Your task to perform on an android device: Search for seafood restaurants on Google Maps Image 0: 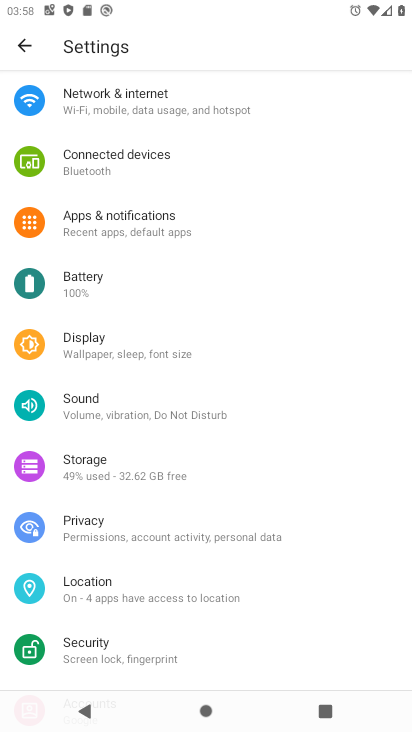
Step 0: press home button
Your task to perform on an android device: Search for seafood restaurants on Google Maps Image 1: 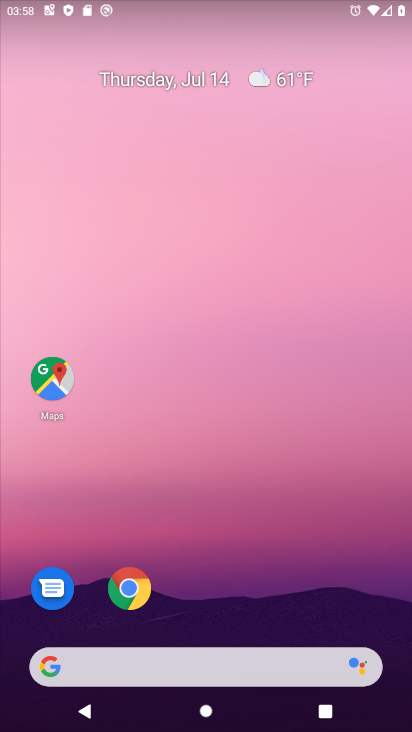
Step 1: click (50, 386)
Your task to perform on an android device: Search for seafood restaurants on Google Maps Image 2: 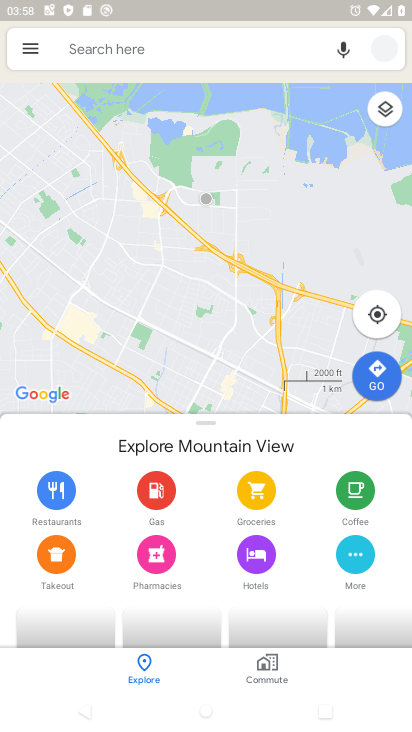
Step 2: click (89, 52)
Your task to perform on an android device: Search for seafood restaurants on Google Maps Image 3: 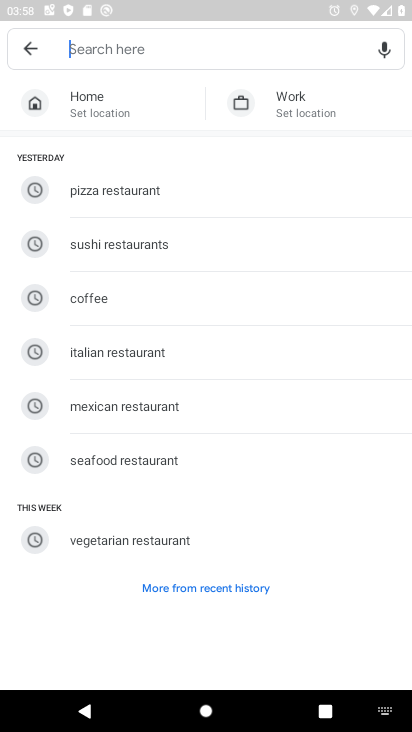
Step 3: click (121, 459)
Your task to perform on an android device: Search for seafood restaurants on Google Maps Image 4: 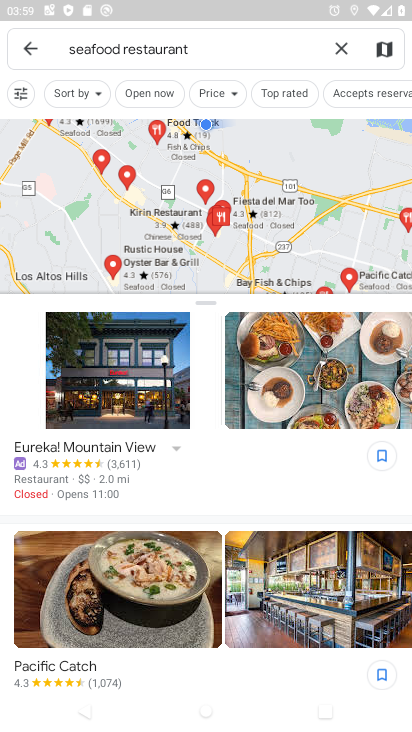
Step 4: task complete